Your task to perform on an android device: change the upload size in google photos Image 0: 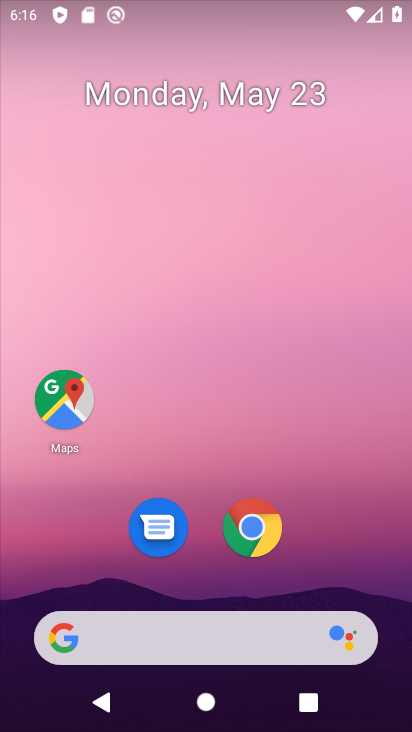
Step 0: drag from (344, 555) to (378, 170)
Your task to perform on an android device: change the upload size in google photos Image 1: 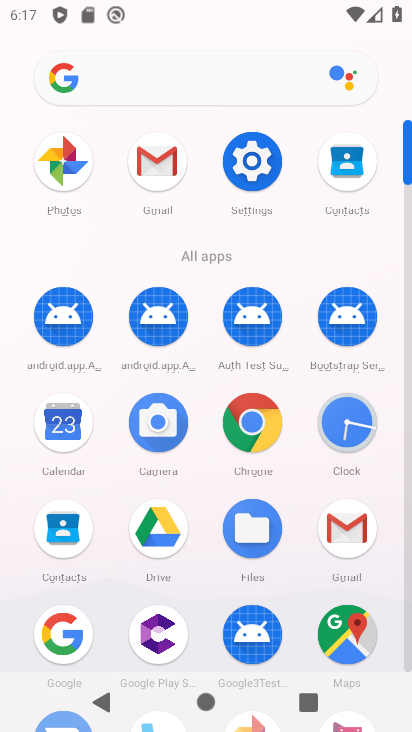
Step 1: click (73, 158)
Your task to perform on an android device: change the upload size in google photos Image 2: 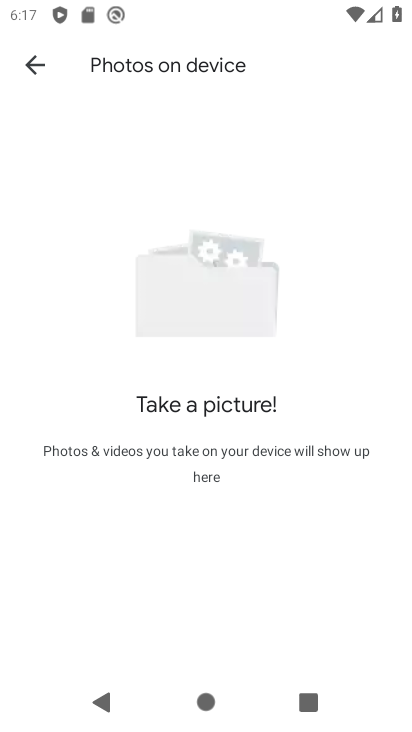
Step 2: click (40, 65)
Your task to perform on an android device: change the upload size in google photos Image 3: 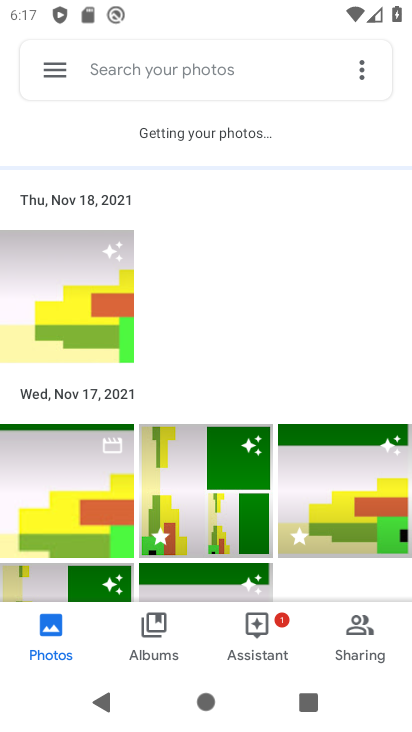
Step 3: click (53, 71)
Your task to perform on an android device: change the upload size in google photos Image 4: 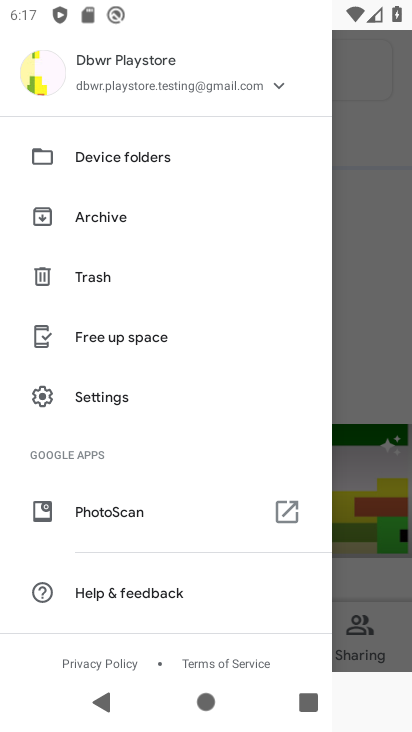
Step 4: click (110, 391)
Your task to perform on an android device: change the upload size in google photos Image 5: 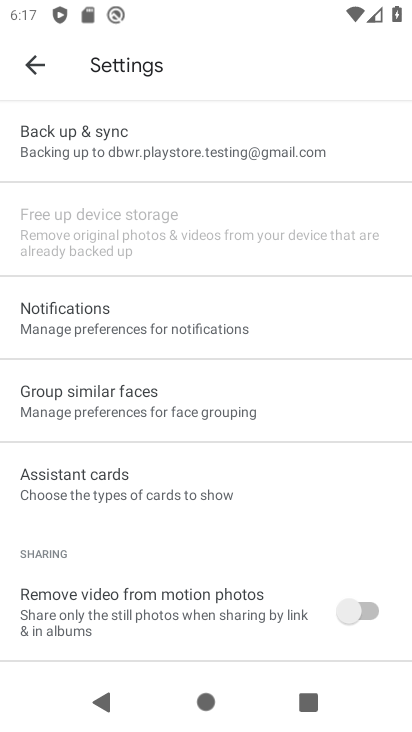
Step 5: click (84, 127)
Your task to perform on an android device: change the upload size in google photos Image 6: 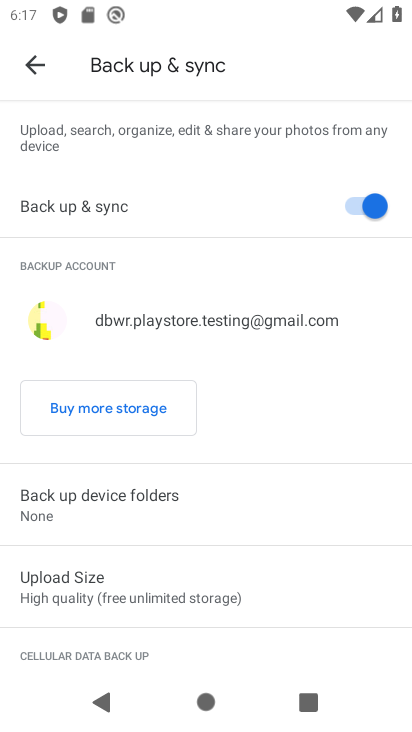
Step 6: click (92, 590)
Your task to perform on an android device: change the upload size in google photos Image 7: 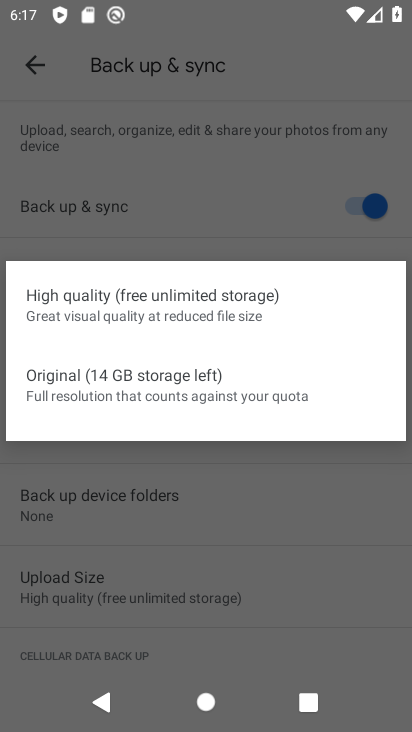
Step 7: click (157, 378)
Your task to perform on an android device: change the upload size in google photos Image 8: 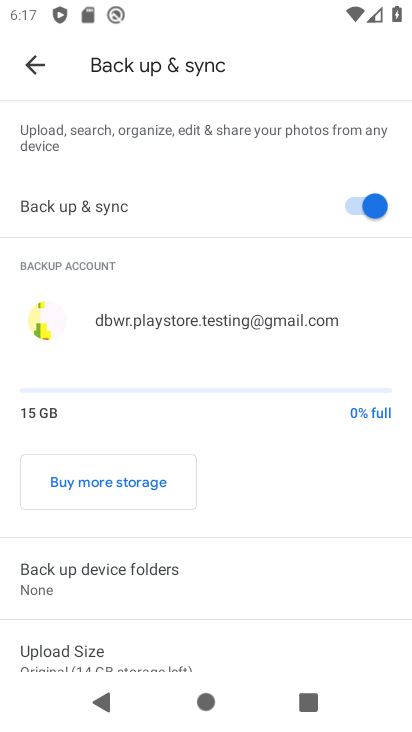
Step 8: task complete